Your task to perform on an android device: open wifi settings Image 0: 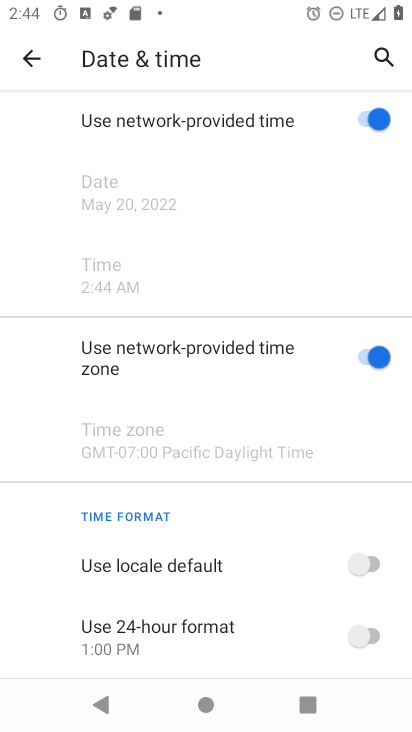
Step 0: press home button
Your task to perform on an android device: open wifi settings Image 1: 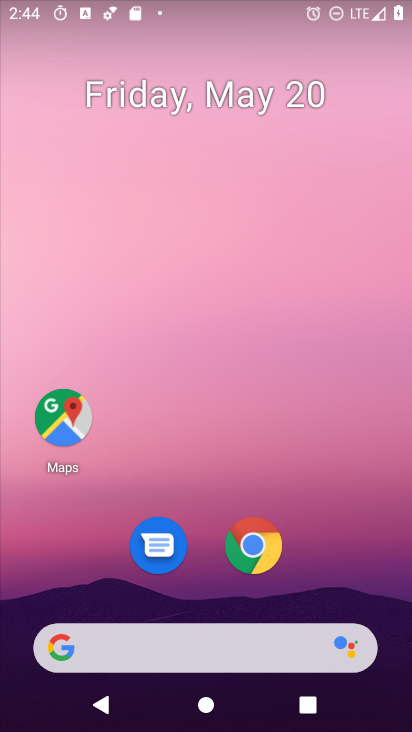
Step 1: drag from (305, 642) to (357, 49)
Your task to perform on an android device: open wifi settings Image 2: 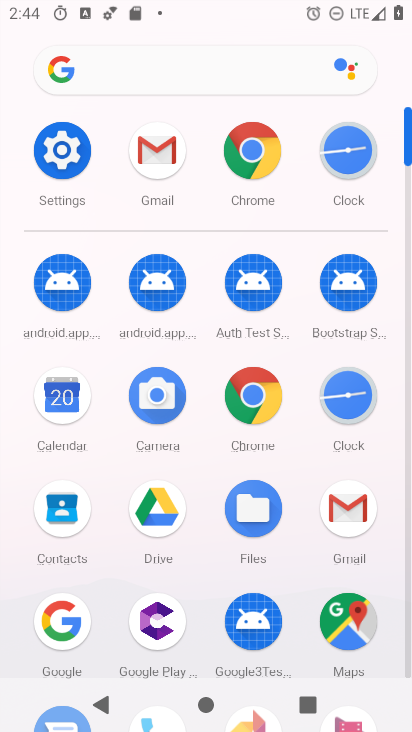
Step 2: drag from (220, 590) to (236, 210)
Your task to perform on an android device: open wifi settings Image 3: 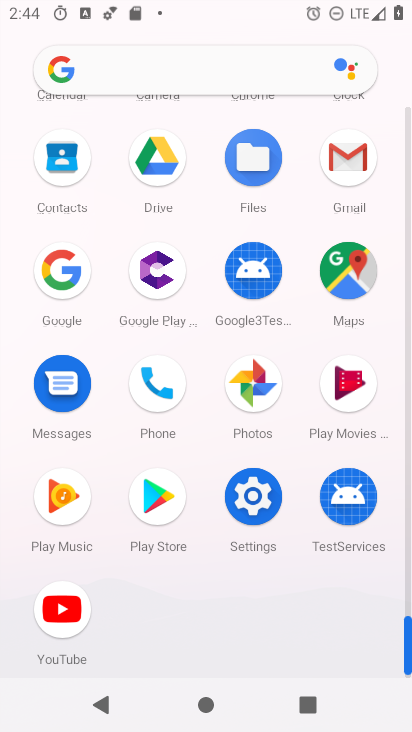
Step 3: click (253, 514)
Your task to perform on an android device: open wifi settings Image 4: 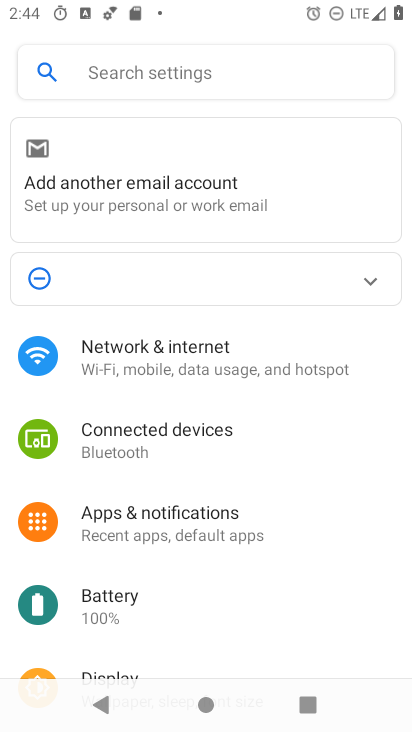
Step 4: click (142, 378)
Your task to perform on an android device: open wifi settings Image 5: 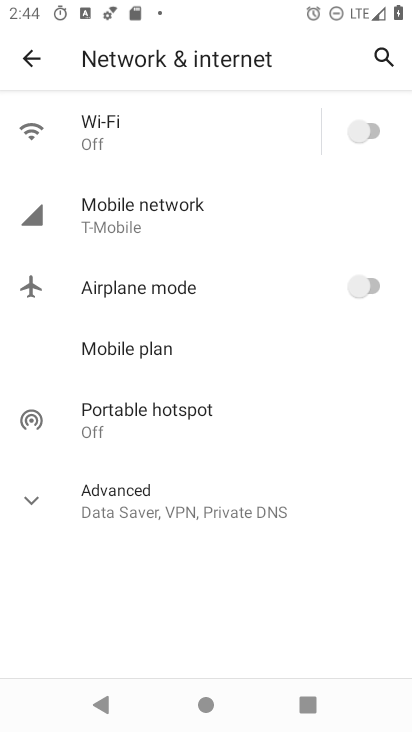
Step 5: click (192, 132)
Your task to perform on an android device: open wifi settings Image 6: 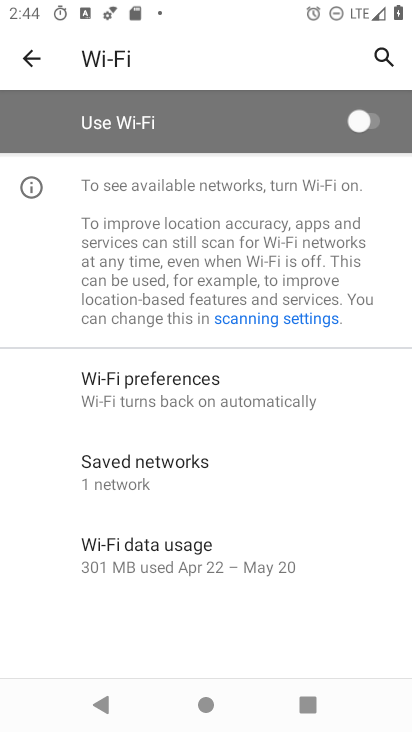
Step 6: task complete